Your task to perform on an android device: turn off translation in the chrome app Image 0: 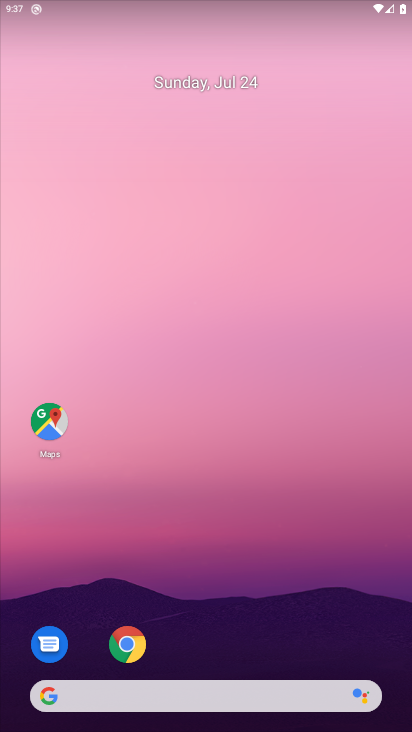
Step 0: drag from (258, 634) to (322, 65)
Your task to perform on an android device: turn off translation in the chrome app Image 1: 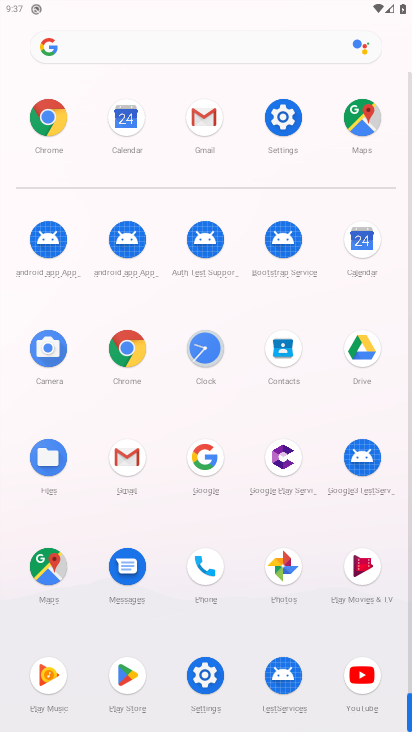
Step 1: click (127, 348)
Your task to perform on an android device: turn off translation in the chrome app Image 2: 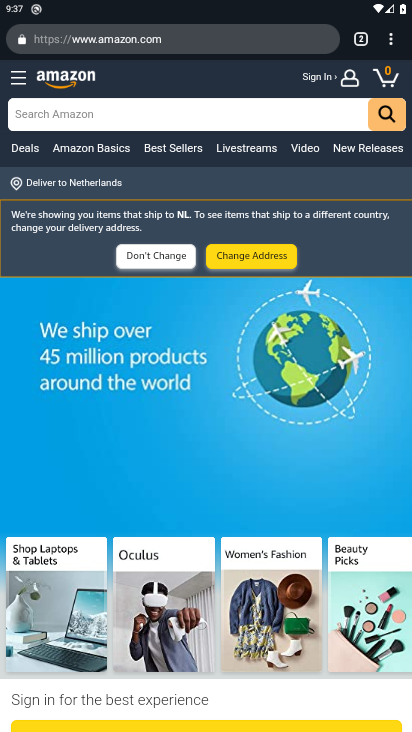
Step 2: drag from (388, 32) to (261, 503)
Your task to perform on an android device: turn off translation in the chrome app Image 3: 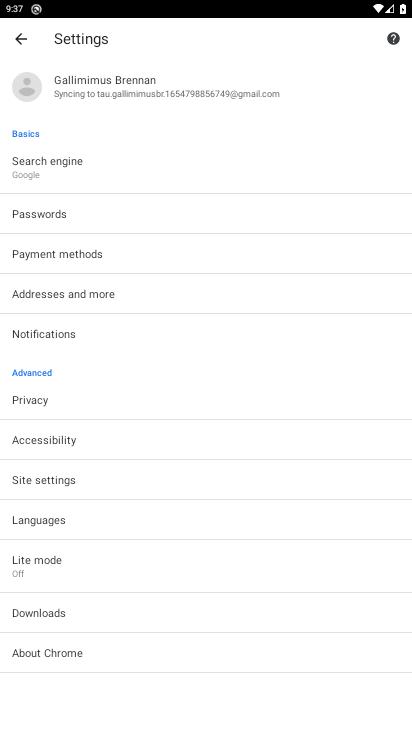
Step 3: click (52, 520)
Your task to perform on an android device: turn off translation in the chrome app Image 4: 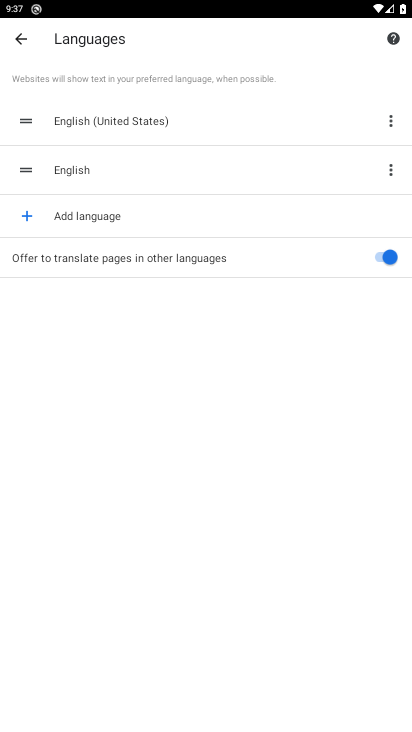
Step 4: click (354, 247)
Your task to perform on an android device: turn off translation in the chrome app Image 5: 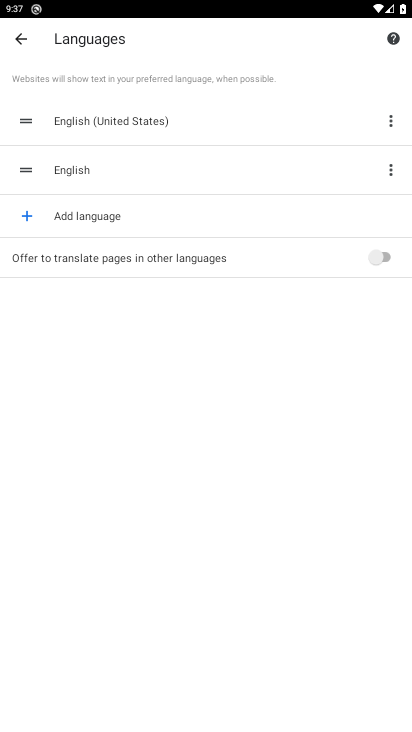
Step 5: task complete